Your task to perform on an android device: Clear the cart on newegg.com. Search for "razer naga" on newegg.com, select the first entry, add it to the cart, then select checkout. Image 0: 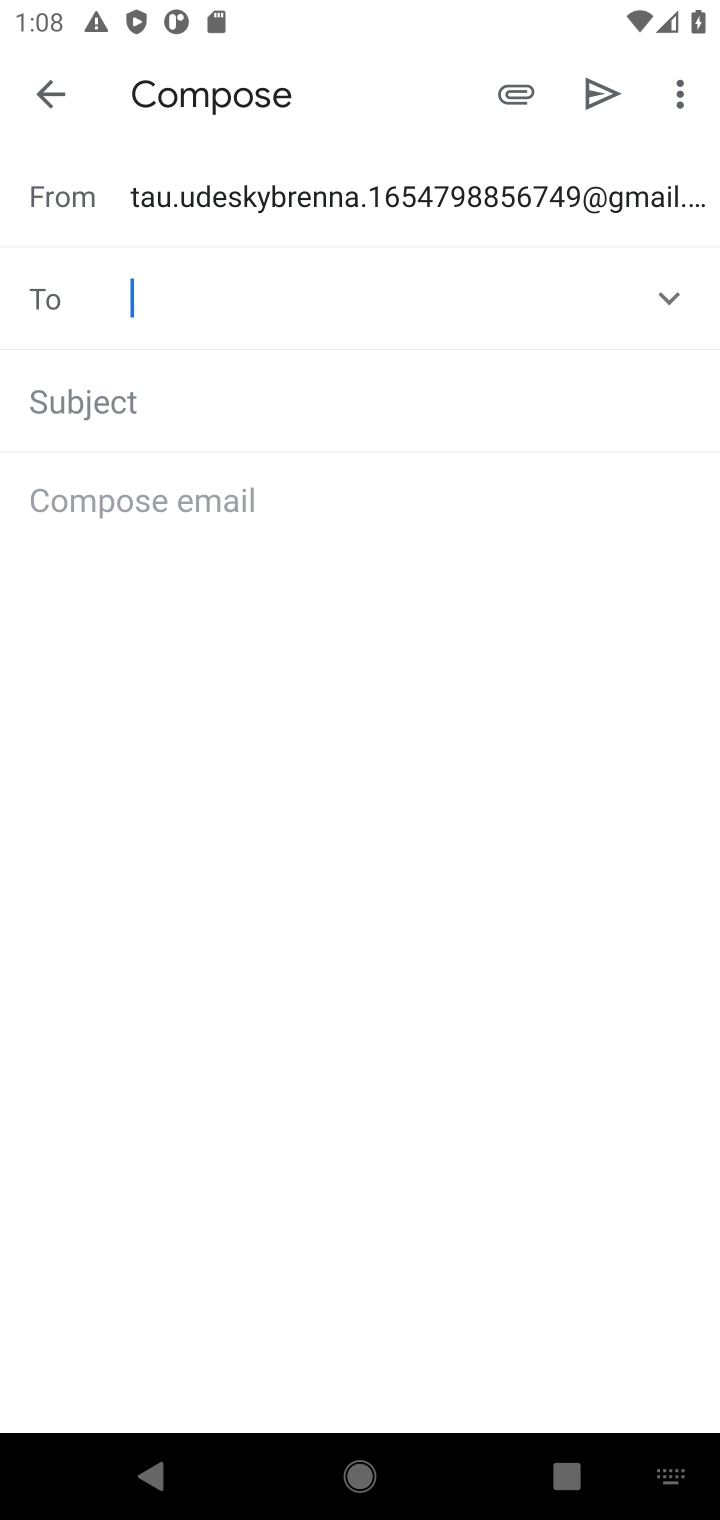
Step 0: press home button
Your task to perform on an android device: Clear the cart on newegg.com. Search for "razer naga" on newegg.com, select the first entry, add it to the cart, then select checkout. Image 1: 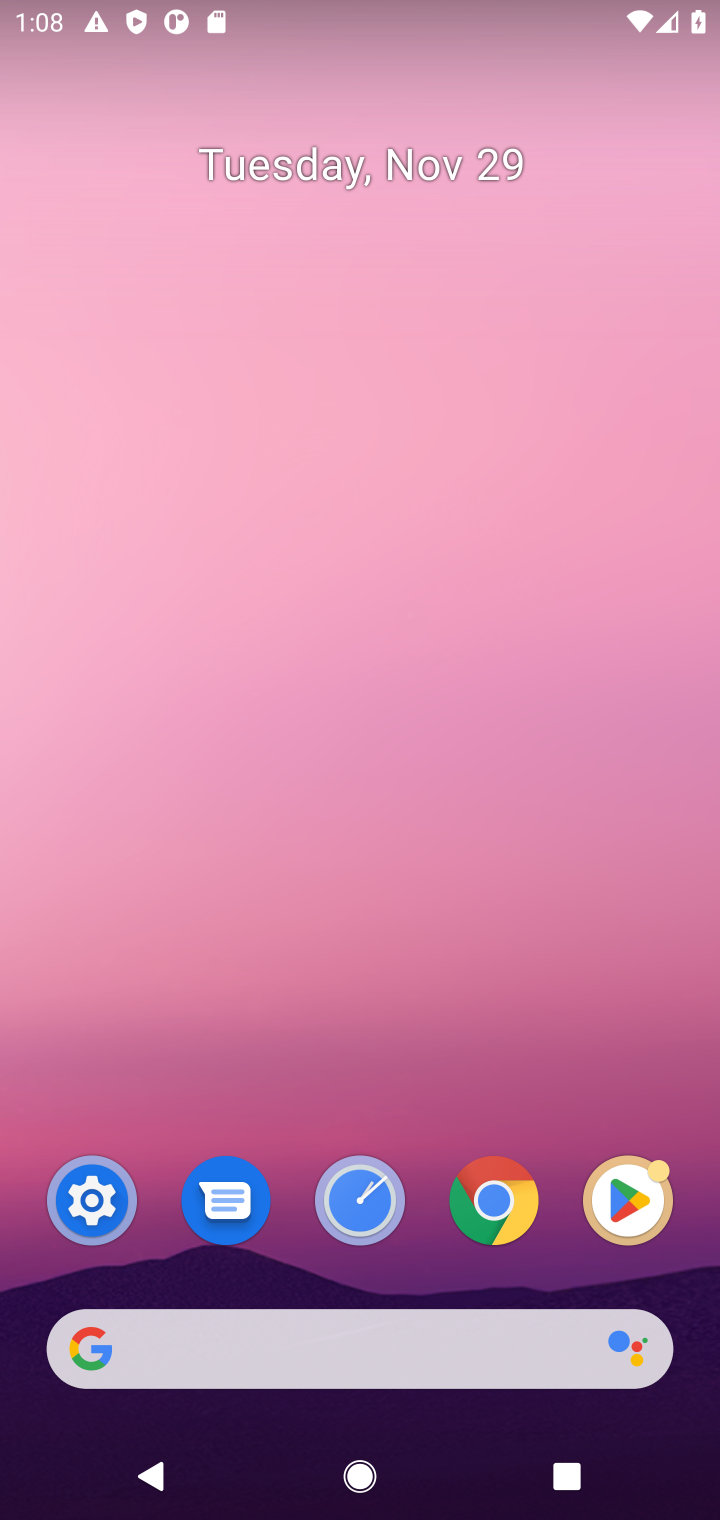
Step 1: click (314, 1356)
Your task to perform on an android device: Clear the cart on newegg.com. Search for "razer naga" on newegg.com, select the first entry, add it to the cart, then select checkout. Image 2: 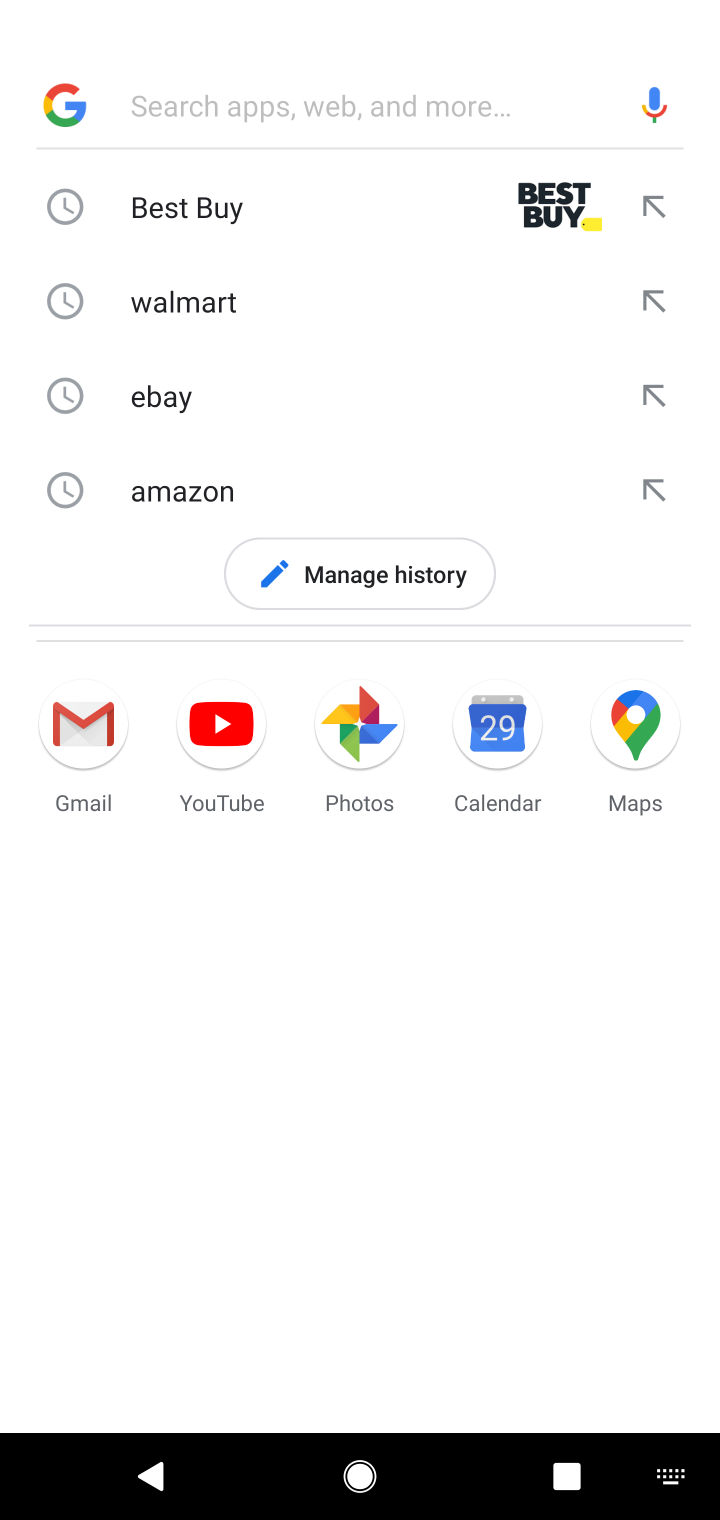
Step 2: type "newegg.com"
Your task to perform on an android device: Clear the cart on newegg.com. Search for "razer naga" on newegg.com, select the first entry, add it to the cart, then select checkout. Image 3: 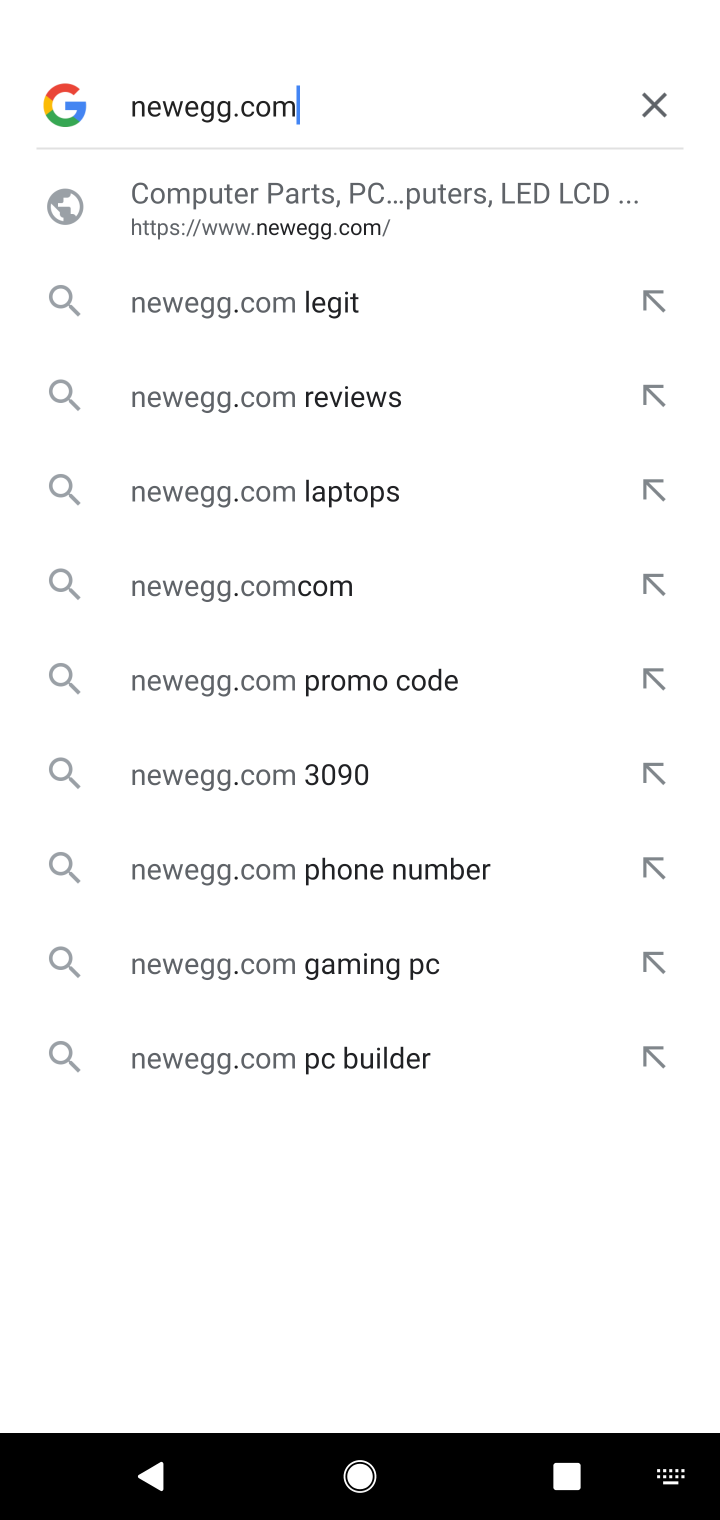
Step 3: click (221, 231)
Your task to perform on an android device: Clear the cart on newegg.com. Search for "razer naga" on newegg.com, select the first entry, add it to the cart, then select checkout. Image 4: 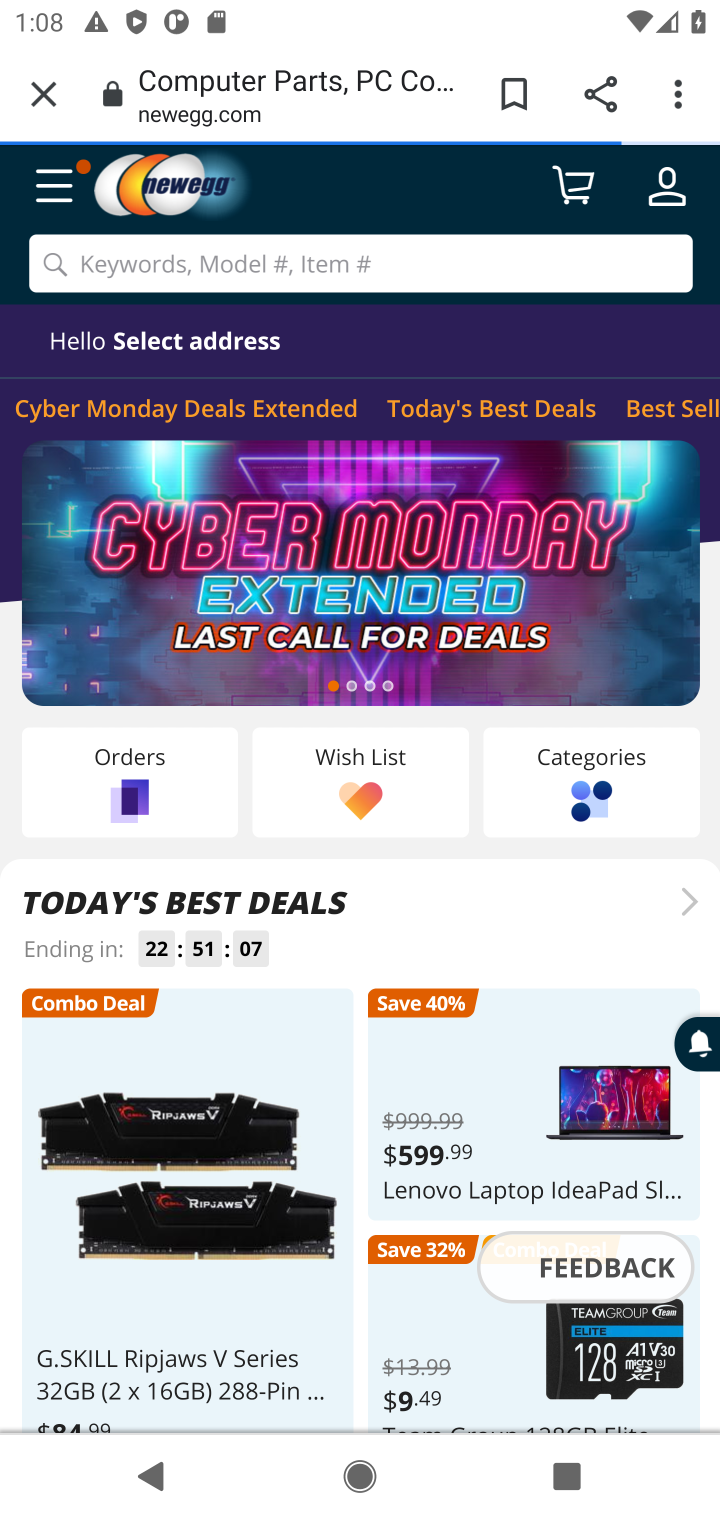
Step 4: click (394, 254)
Your task to perform on an android device: Clear the cart on newegg.com. Search for "razer naga" on newegg.com, select the first entry, add it to the cart, then select checkout. Image 5: 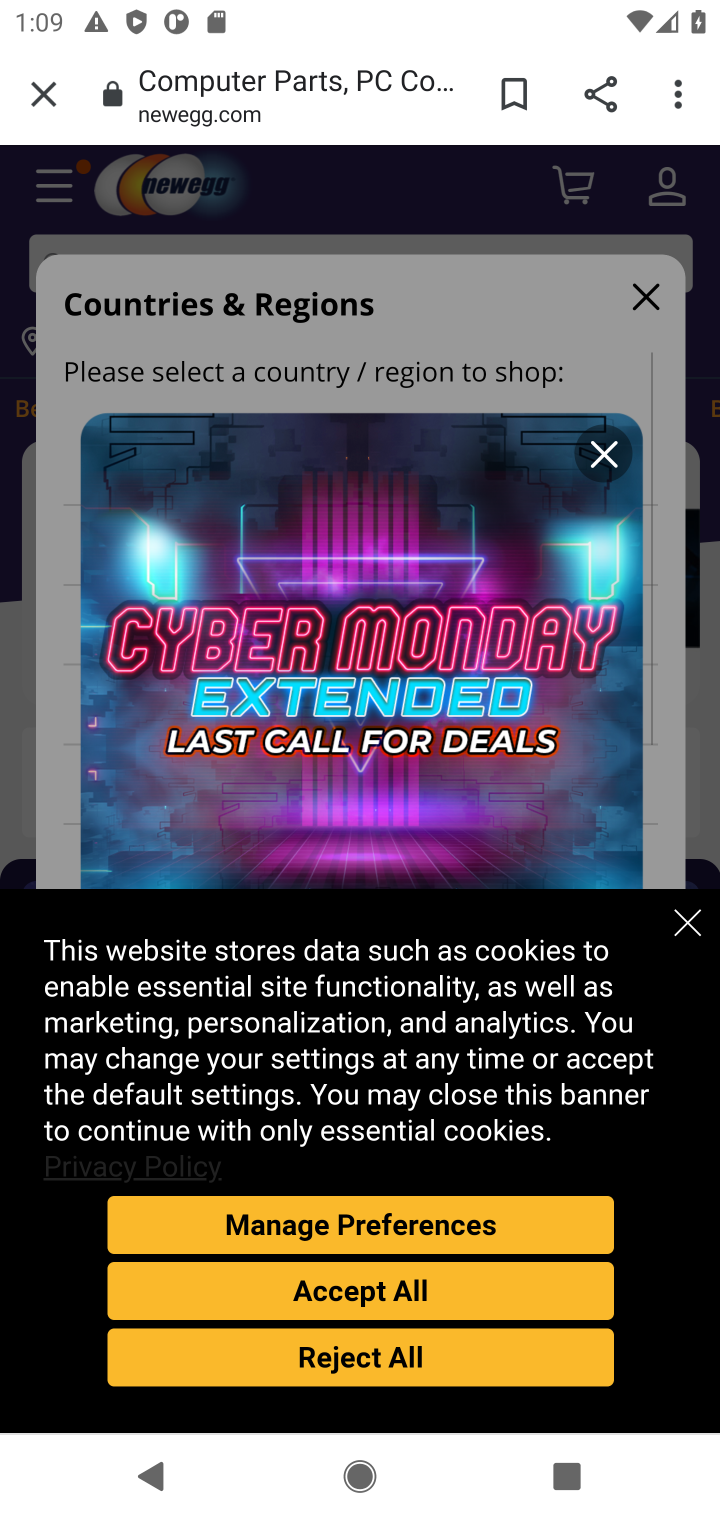
Step 5: click (362, 1312)
Your task to perform on an android device: Clear the cart on newegg.com. Search for "razer naga" on newegg.com, select the first entry, add it to the cart, then select checkout. Image 6: 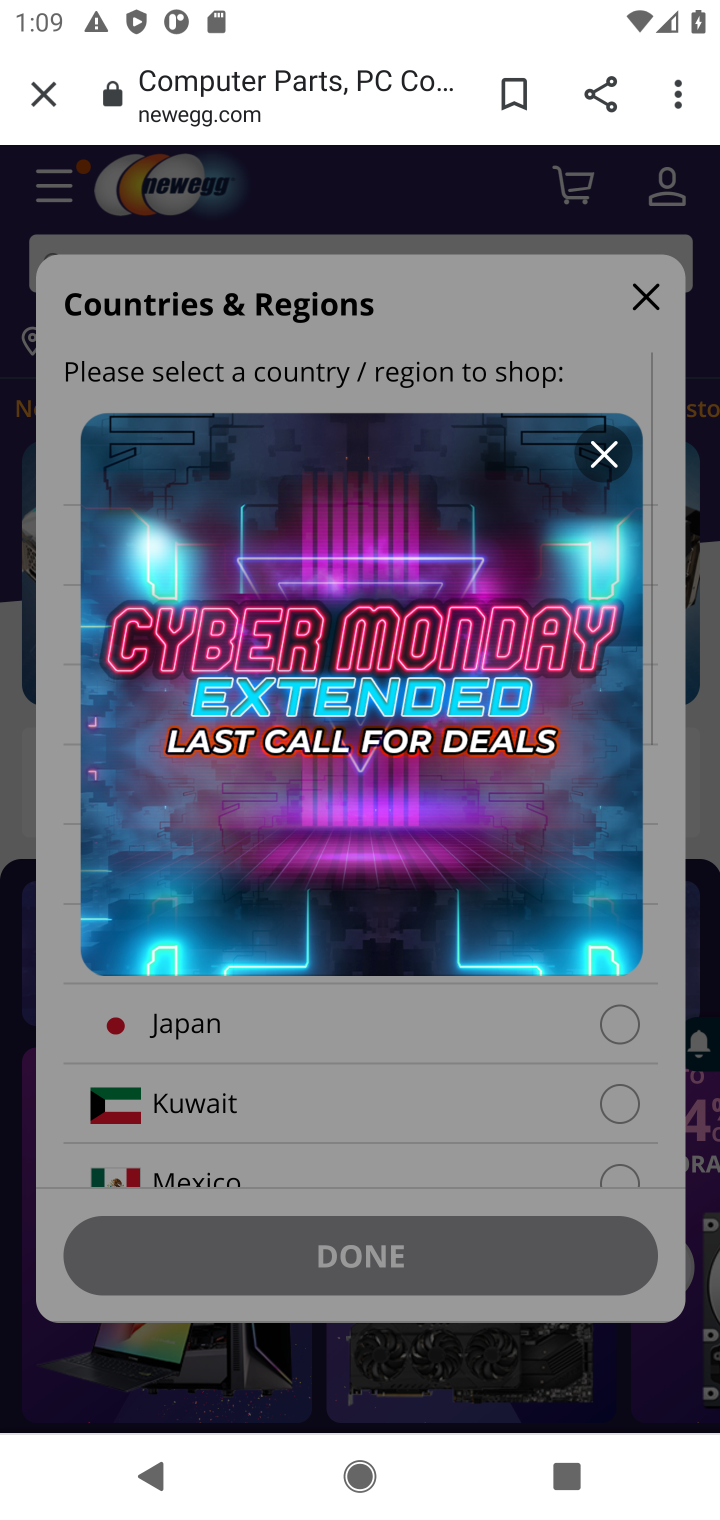
Step 6: click (609, 443)
Your task to perform on an android device: Clear the cart on newegg.com. Search for "razer naga" on newegg.com, select the first entry, add it to the cart, then select checkout. Image 7: 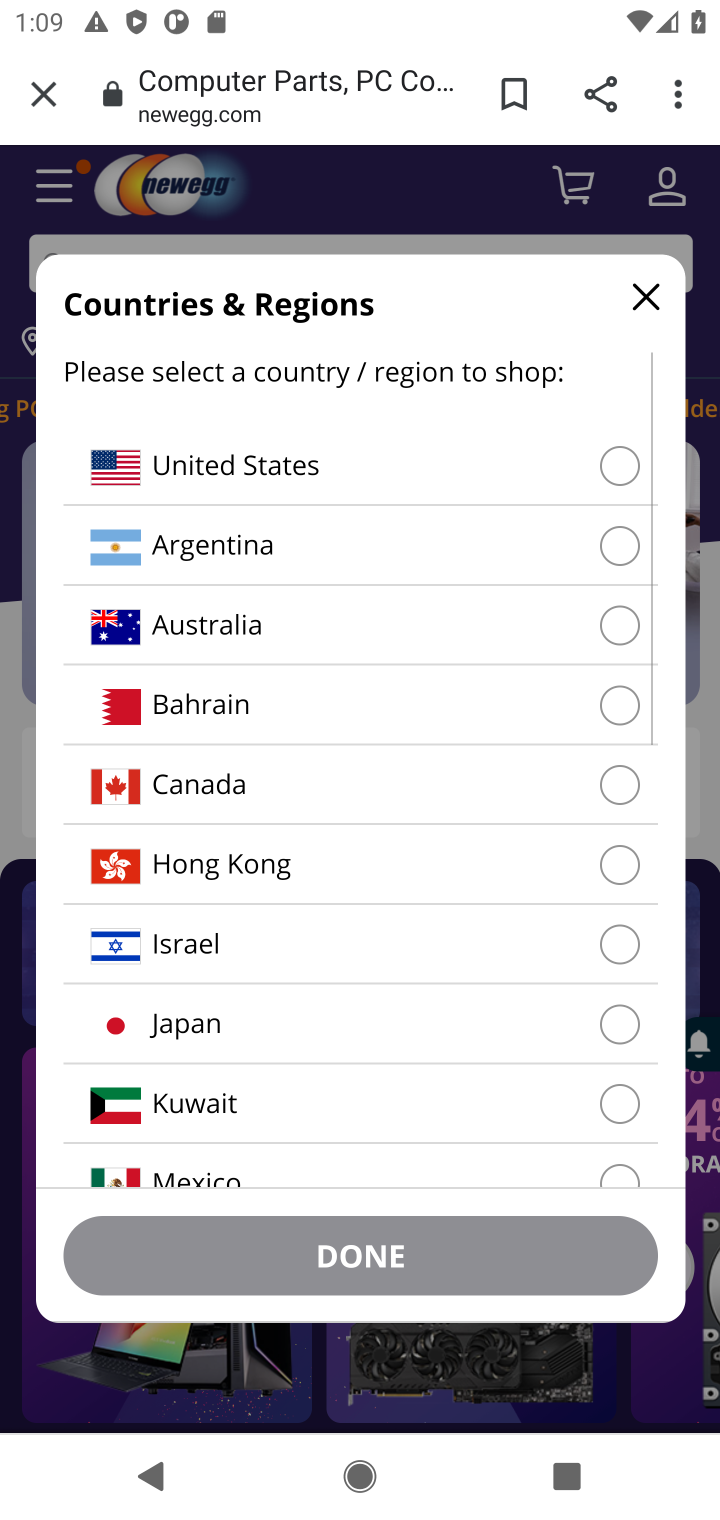
Step 7: click (345, 984)
Your task to perform on an android device: Clear the cart on newegg.com. Search for "razer naga" on newegg.com, select the first entry, add it to the cart, then select checkout. Image 8: 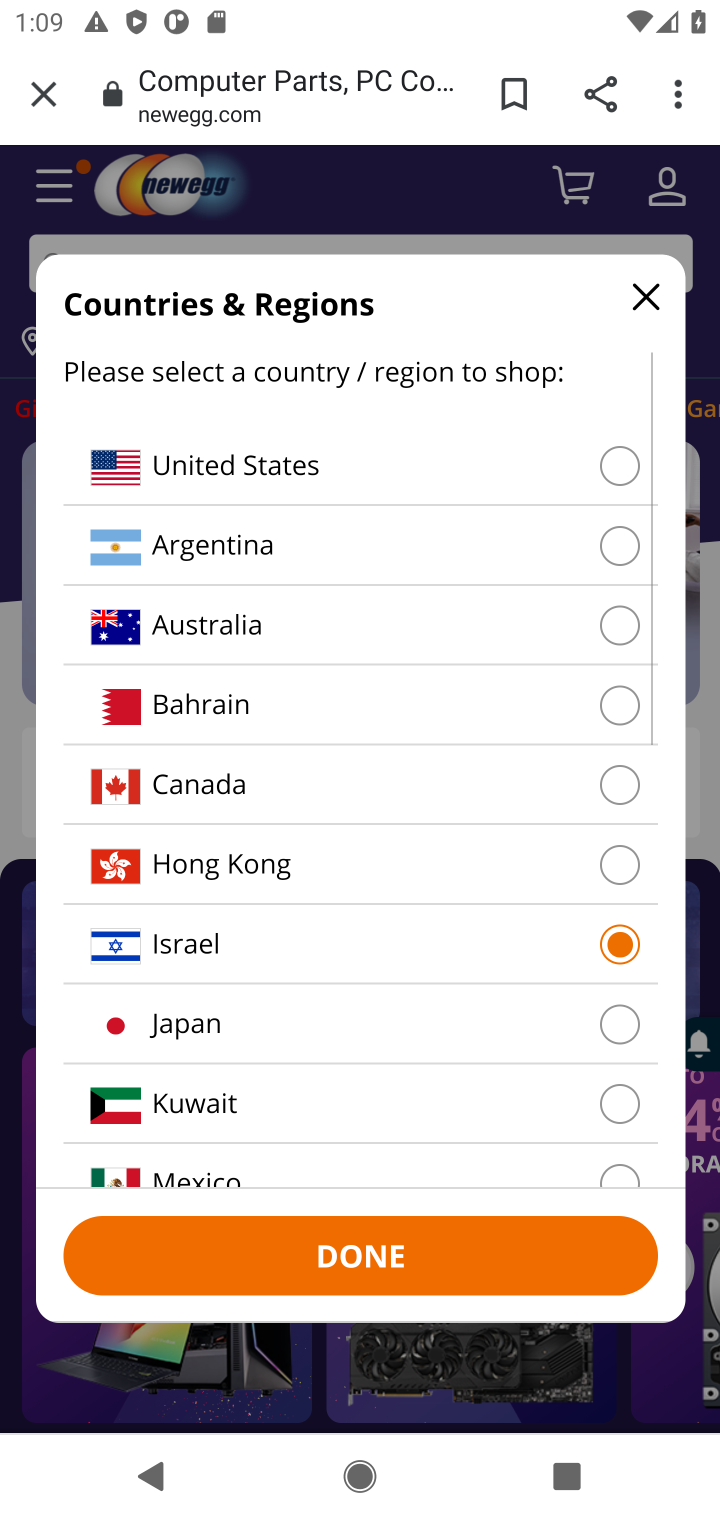
Step 8: click (444, 1254)
Your task to perform on an android device: Clear the cart on newegg.com. Search for "razer naga" on newegg.com, select the first entry, add it to the cart, then select checkout. Image 9: 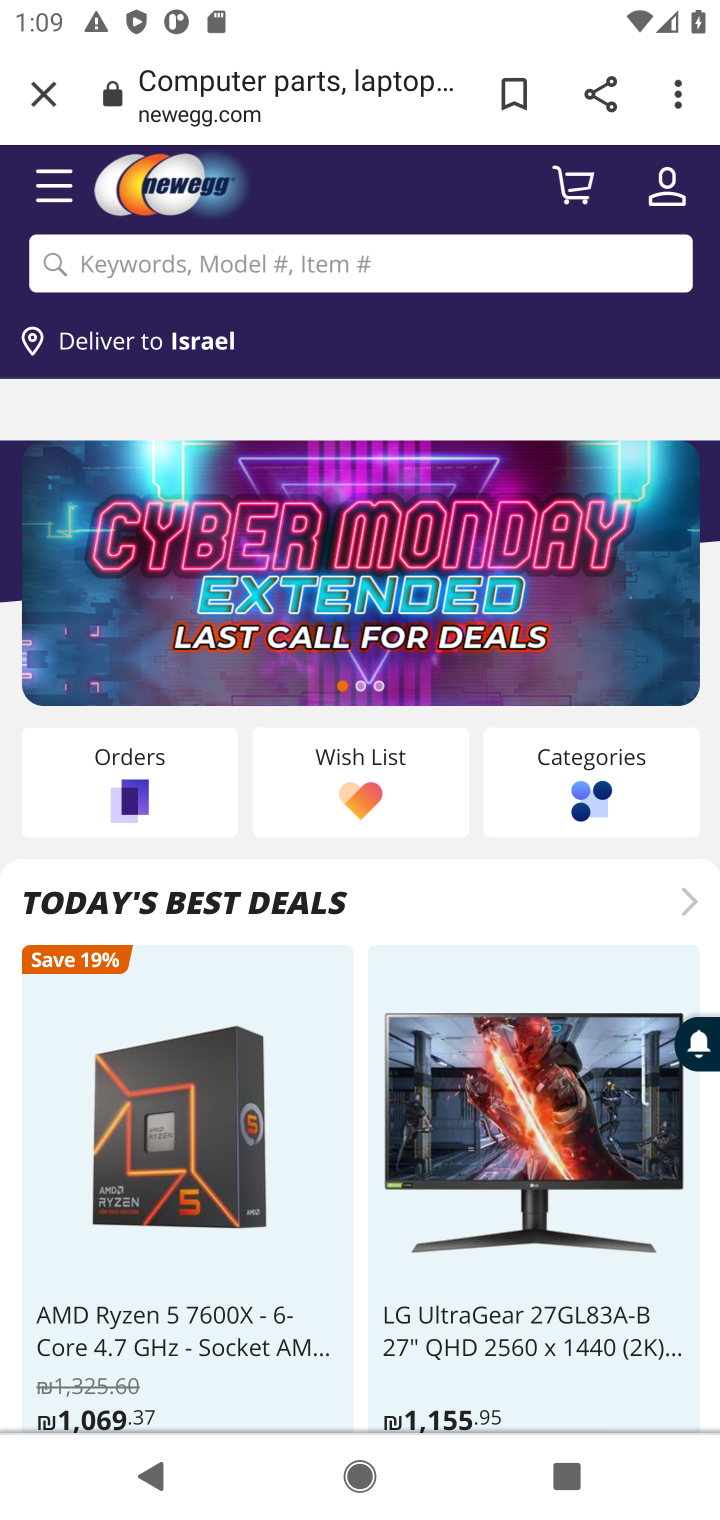
Step 9: click (360, 257)
Your task to perform on an android device: Clear the cart on newegg.com. Search for "razer naga" on newegg.com, select the first entry, add it to the cart, then select checkout. Image 10: 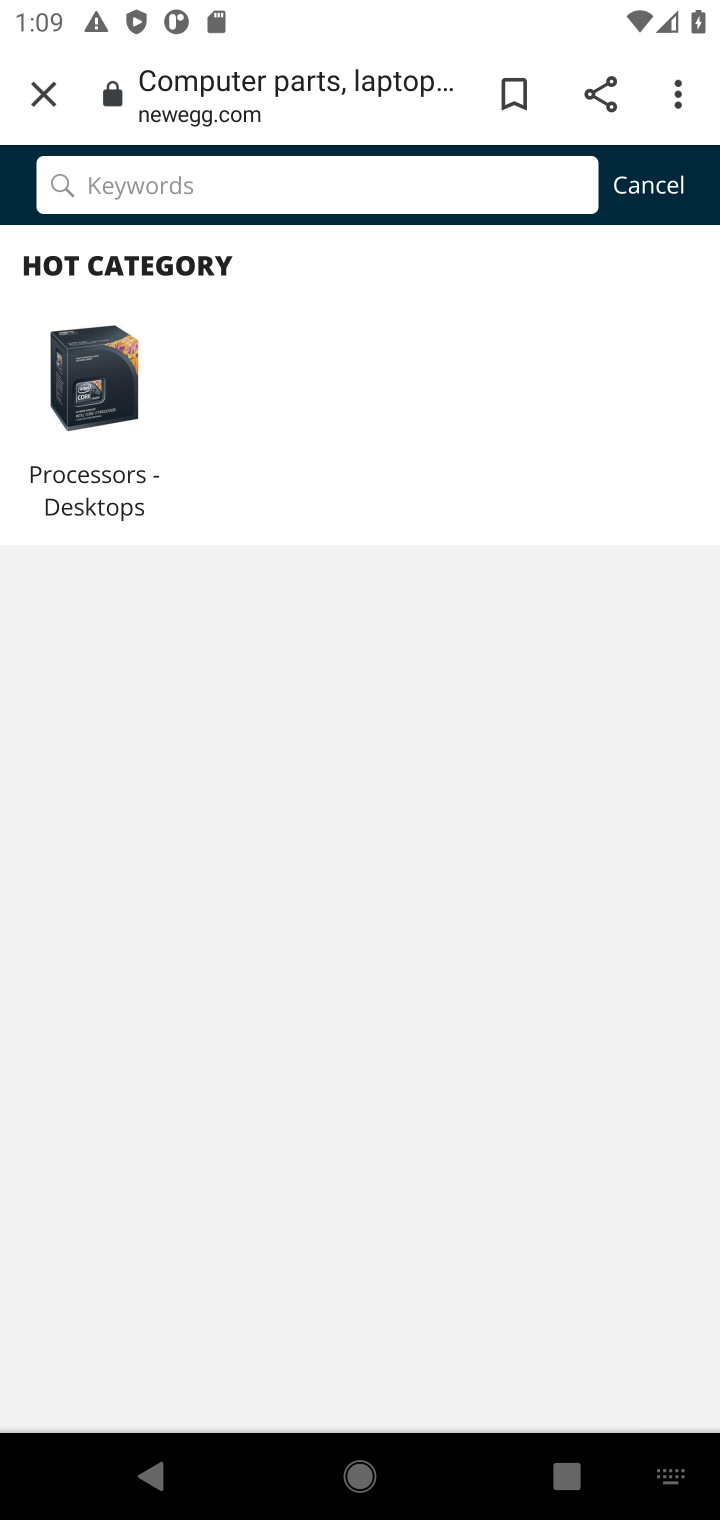
Step 10: type "razer naga"
Your task to perform on an android device: Clear the cart on newegg.com. Search for "razer naga" on newegg.com, select the first entry, add it to the cart, then select checkout. Image 11: 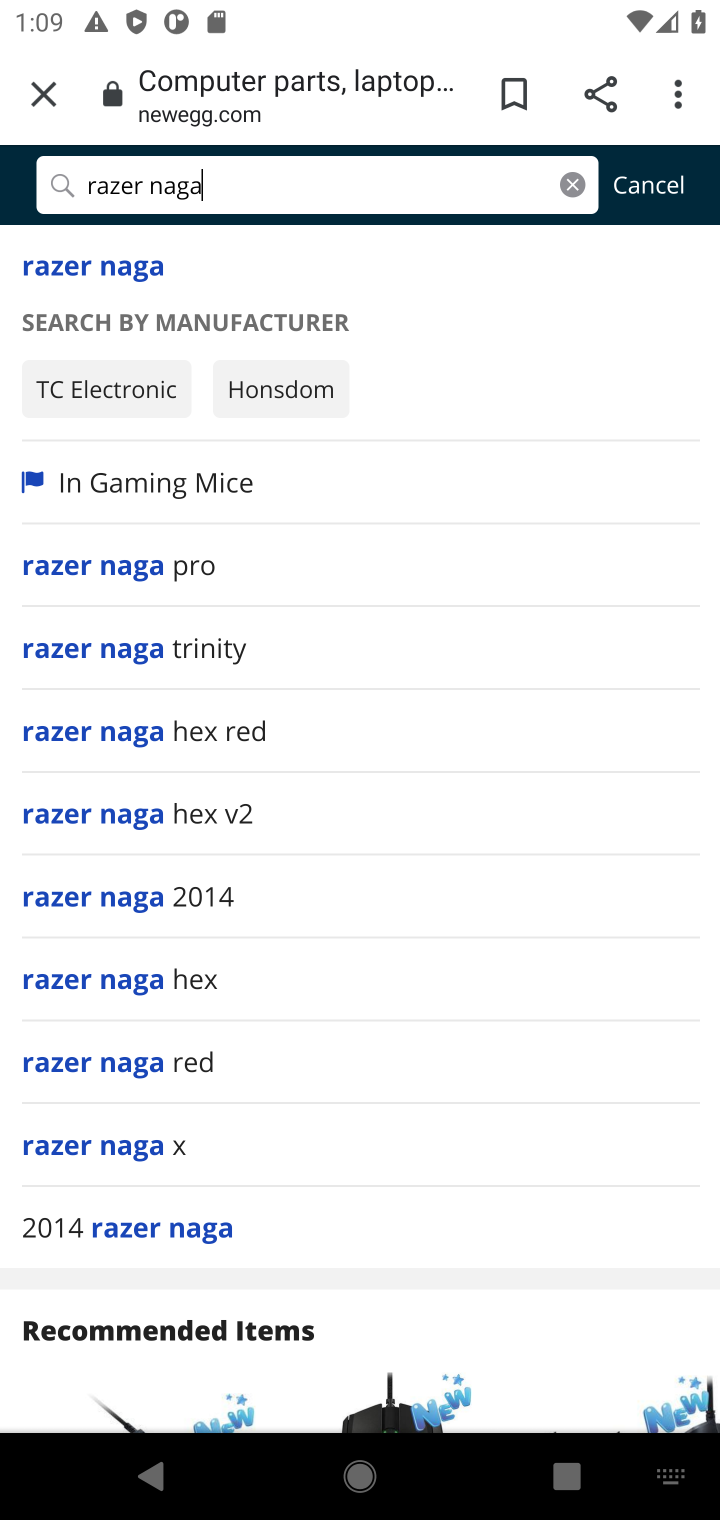
Step 11: click (87, 310)
Your task to perform on an android device: Clear the cart on newegg.com. Search for "razer naga" on newegg.com, select the first entry, add it to the cart, then select checkout. Image 12: 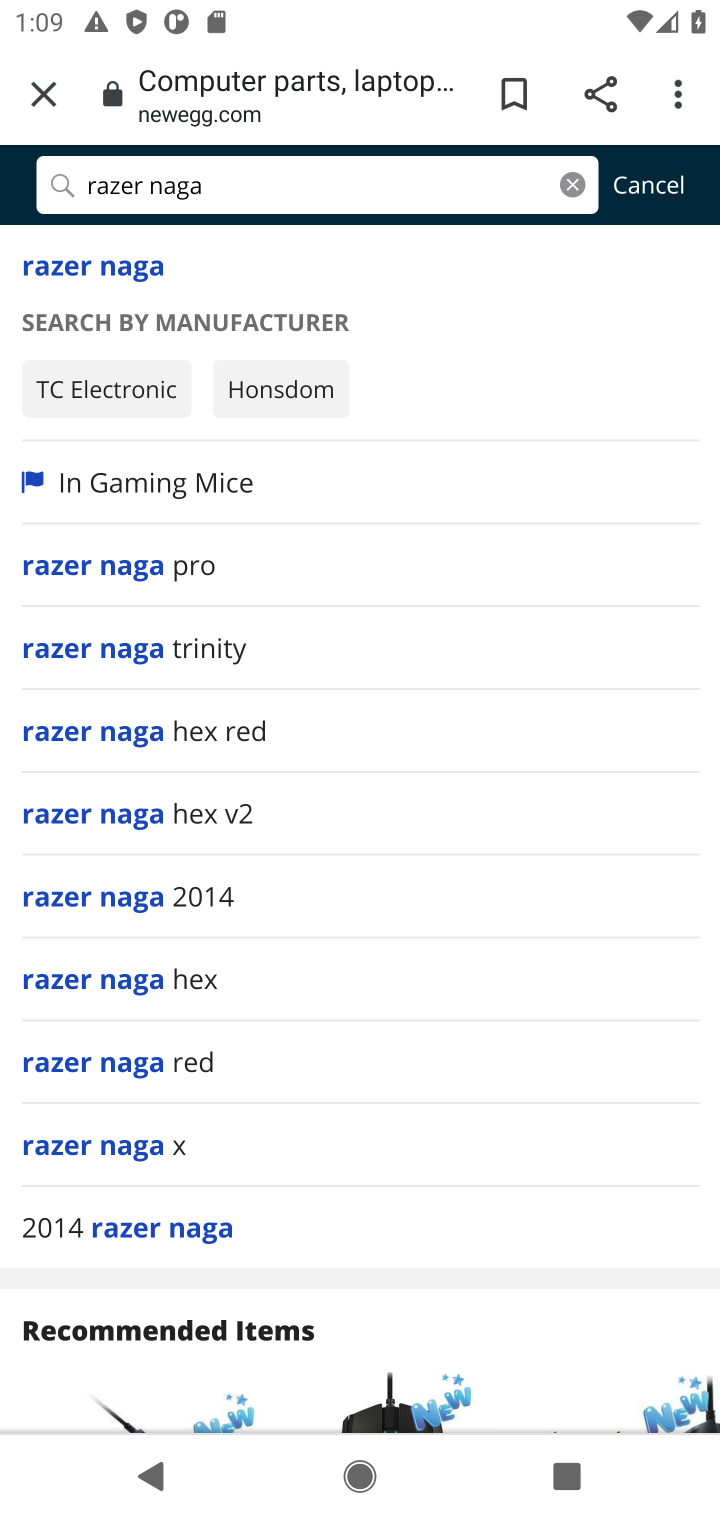
Step 12: click (60, 279)
Your task to perform on an android device: Clear the cart on newegg.com. Search for "razer naga" on newegg.com, select the first entry, add it to the cart, then select checkout. Image 13: 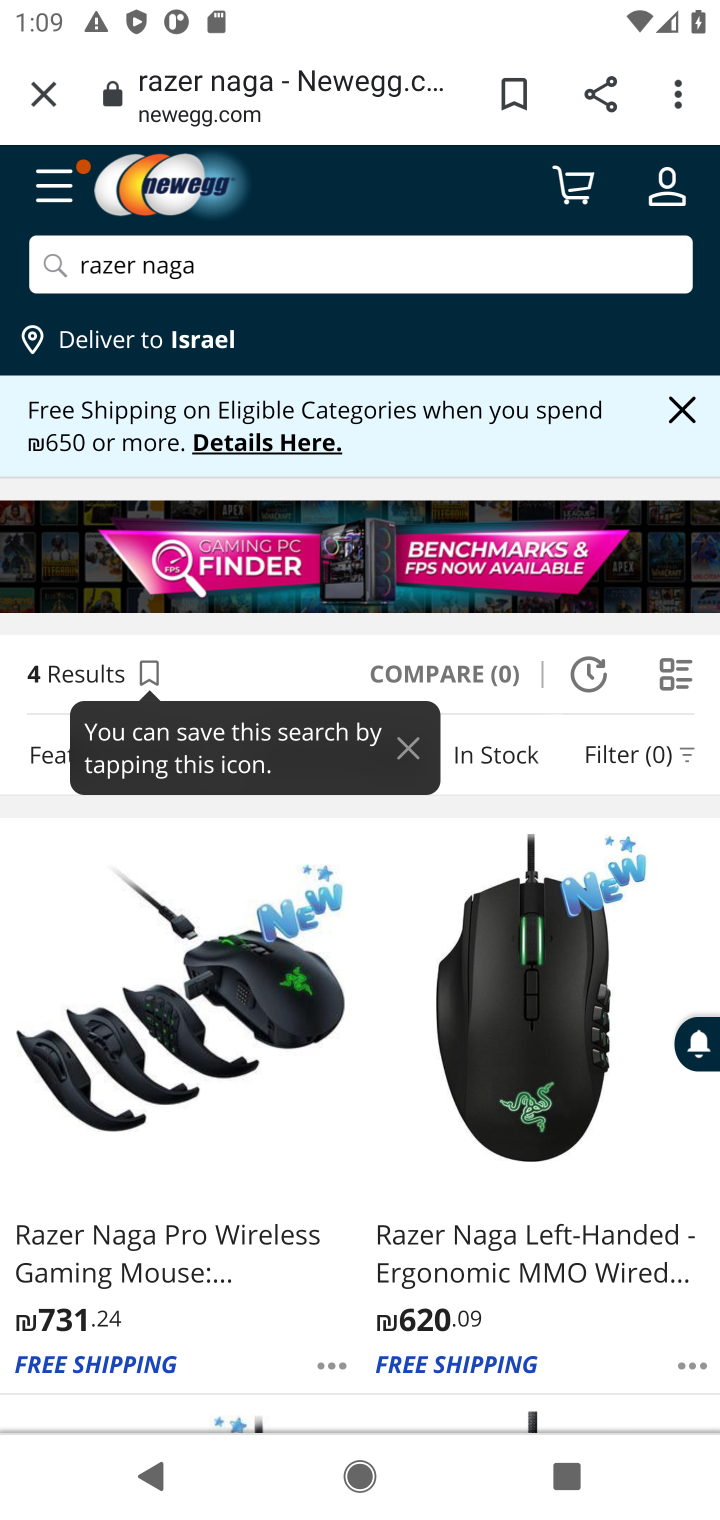
Step 13: click (263, 1089)
Your task to perform on an android device: Clear the cart on newegg.com. Search for "razer naga" on newegg.com, select the first entry, add it to the cart, then select checkout. Image 14: 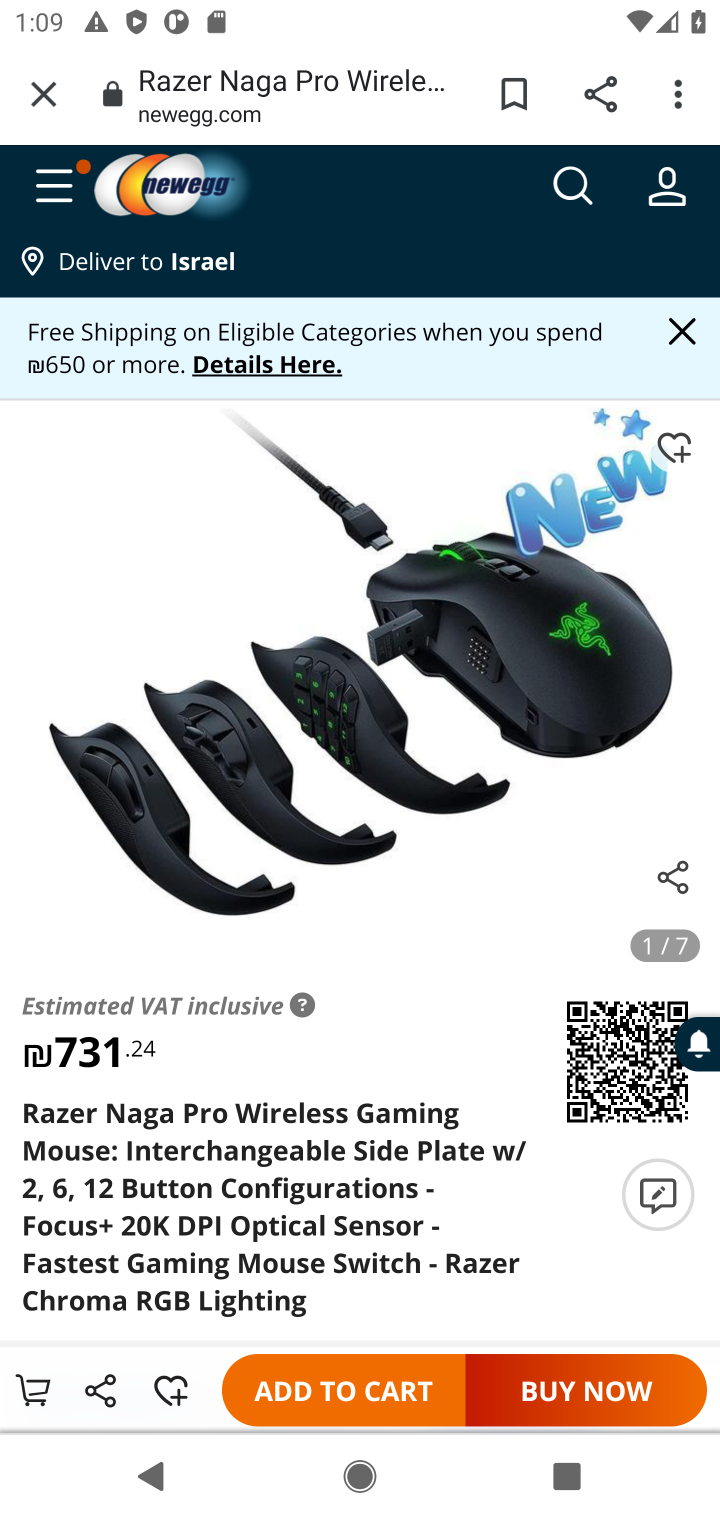
Step 14: click (319, 1400)
Your task to perform on an android device: Clear the cart on newegg.com. Search for "razer naga" on newegg.com, select the first entry, add it to the cart, then select checkout. Image 15: 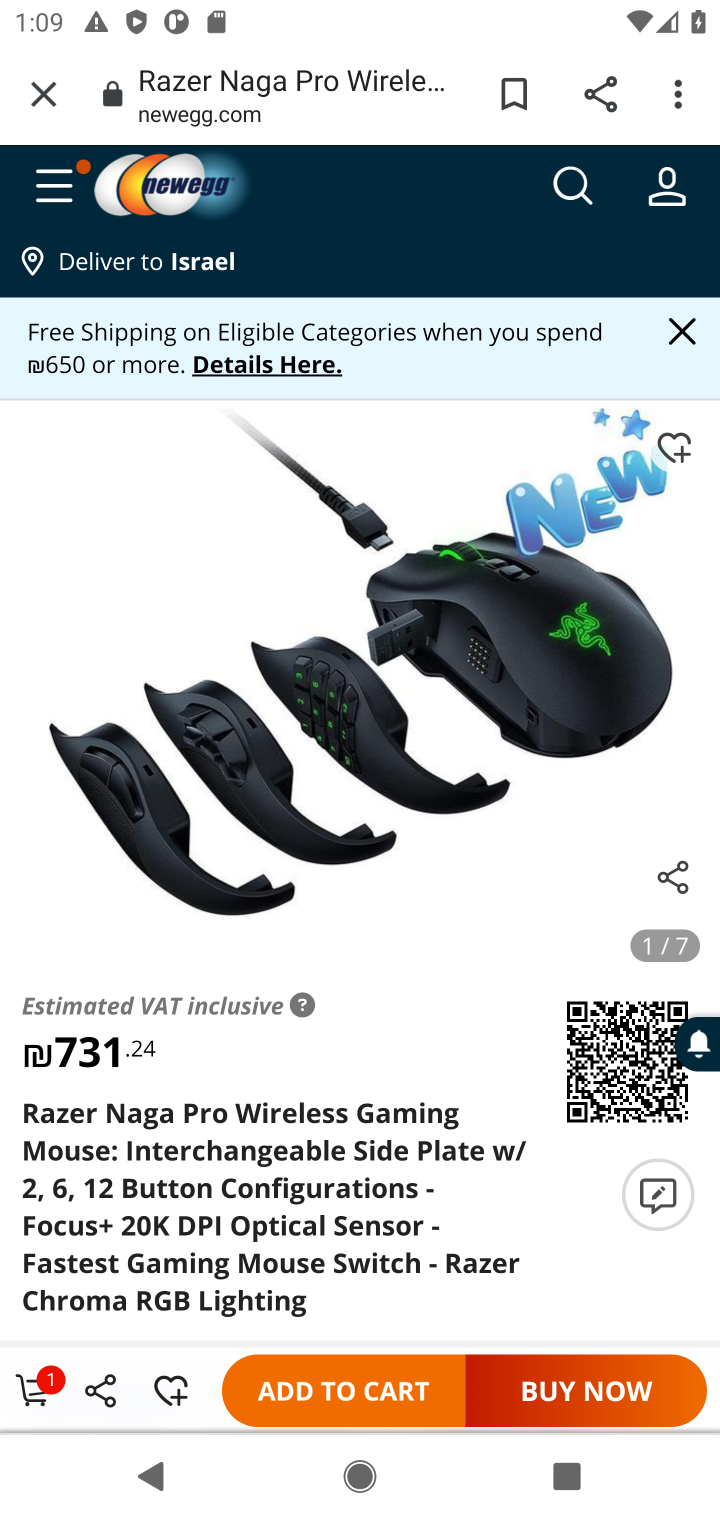
Step 15: task complete